Your task to perform on an android device: Is it going to rain tomorrow? Image 0: 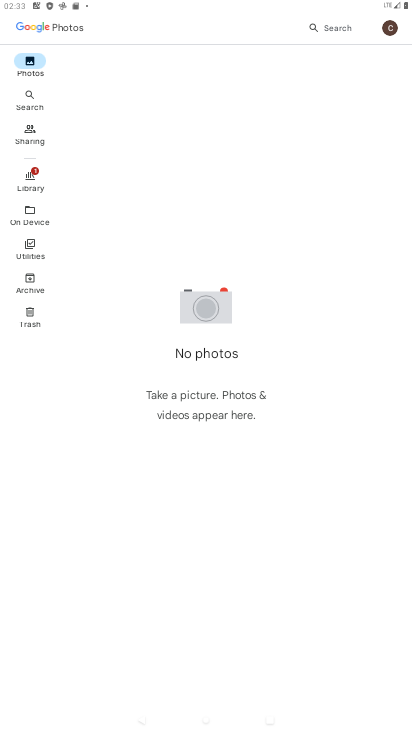
Step 0: press home button
Your task to perform on an android device: Is it going to rain tomorrow? Image 1: 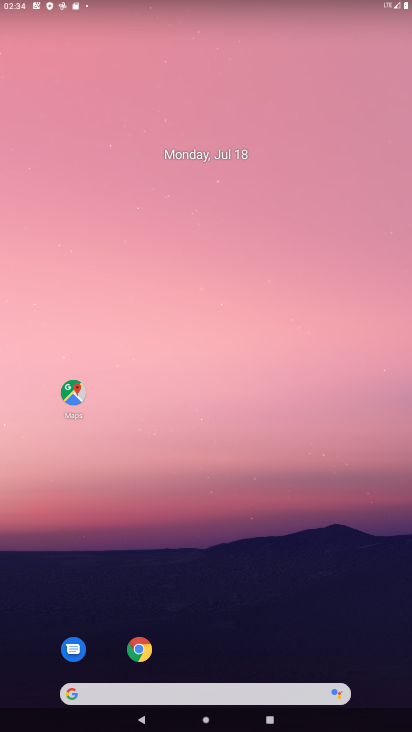
Step 1: click (74, 718)
Your task to perform on an android device: Is it going to rain tomorrow? Image 2: 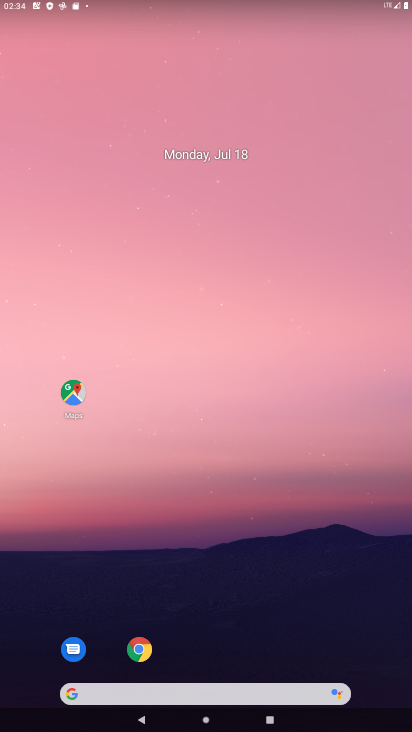
Step 2: click (241, 692)
Your task to perform on an android device: Is it going to rain tomorrow? Image 3: 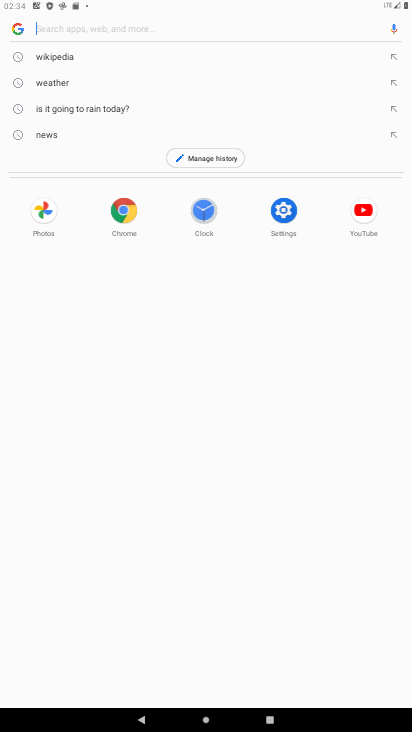
Step 3: type " Is it going to rain tomorrow?"
Your task to perform on an android device: Is it going to rain tomorrow? Image 4: 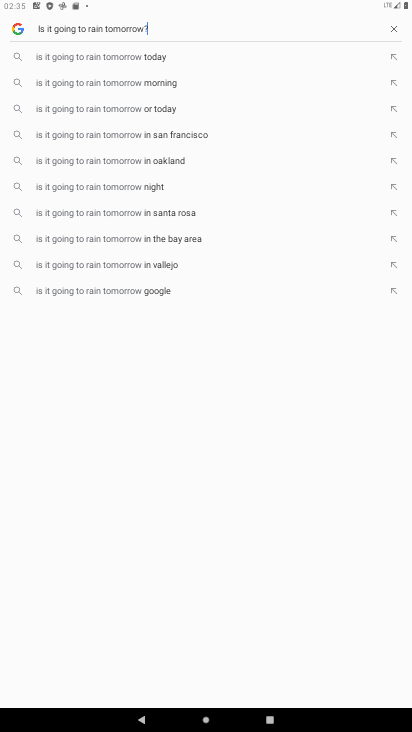
Step 4: press enter
Your task to perform on an android device: Is it going to rain tomorrow? Image 5: 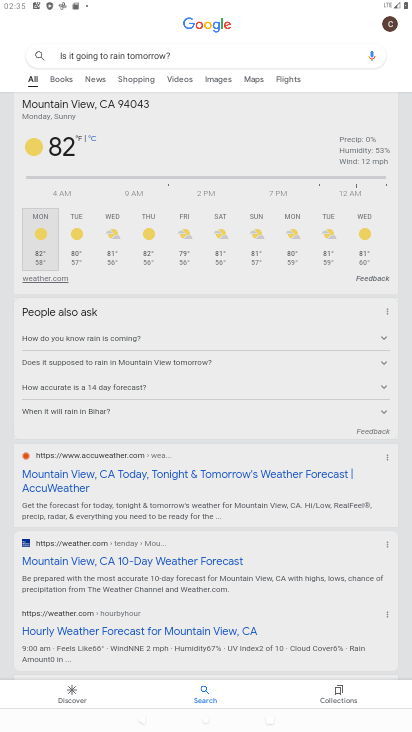
Step 5: task complete